Your task to perform on an android device: toggle airplane mode Image 0: 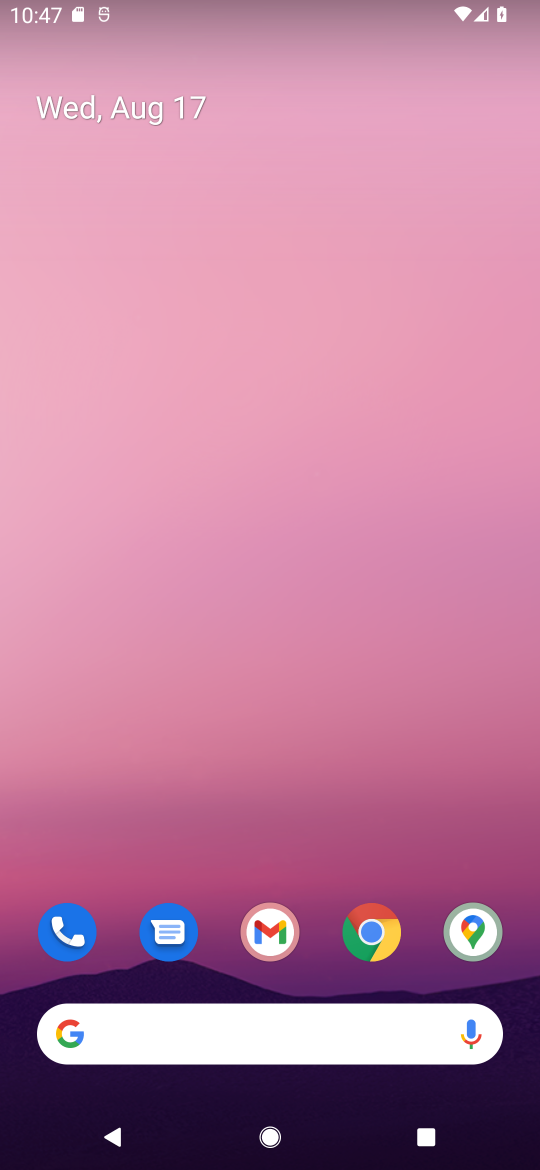
Step 0: drag from (325, 833) to (327, 14)
Your task to perform on an android device: toggle airplane mode Image 1: 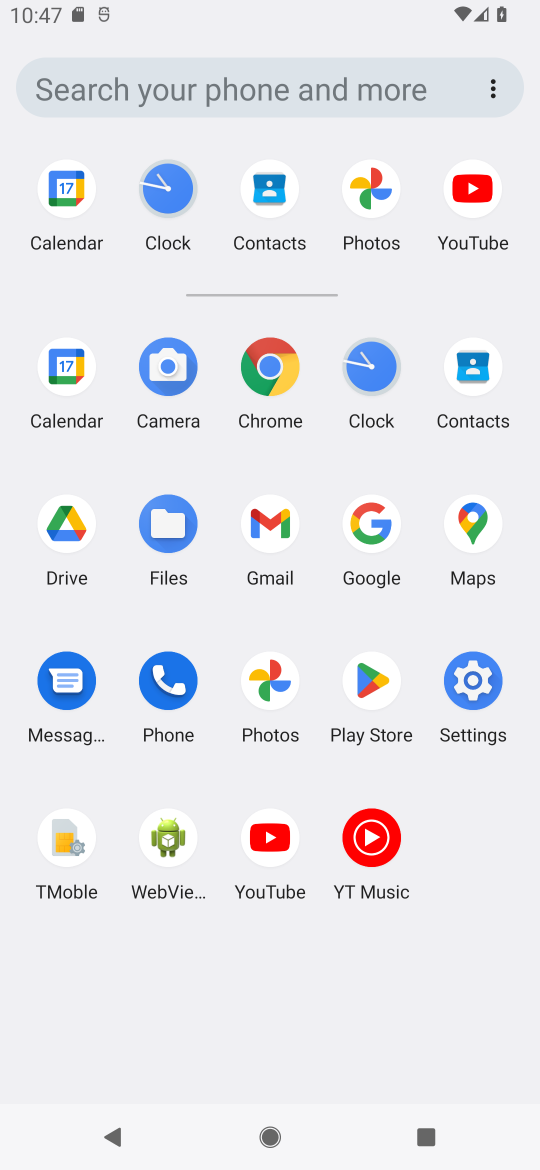
Step 1: click (481, 682)
Your task to perform on an android device: toggle airplane mode Image 2: 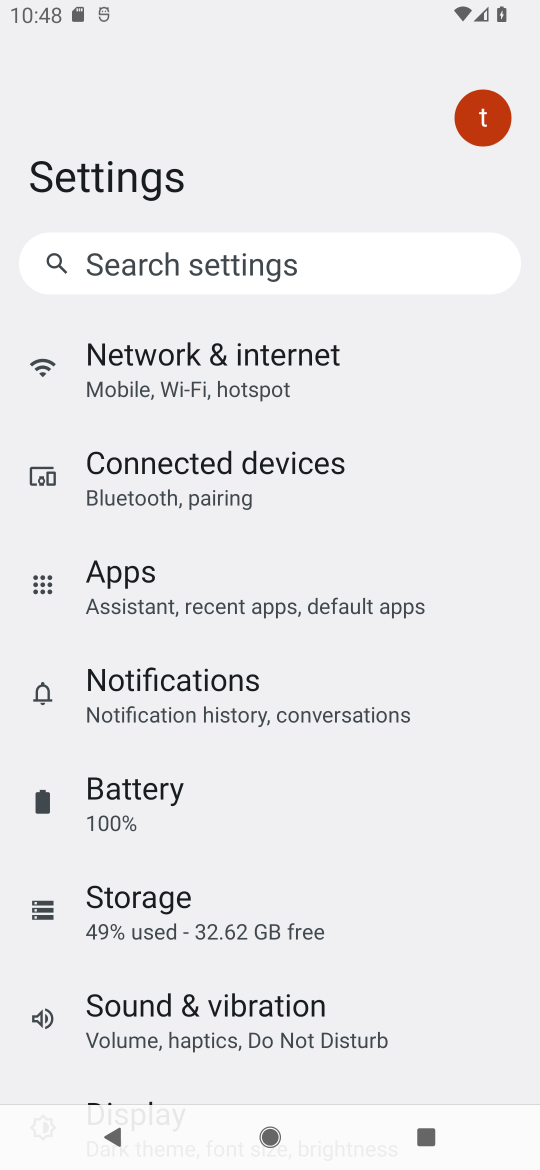
Step 2: drag from (137, 1000) to (137, 848)
Your task to perform on an android device: toggle airplane mode Image 3: 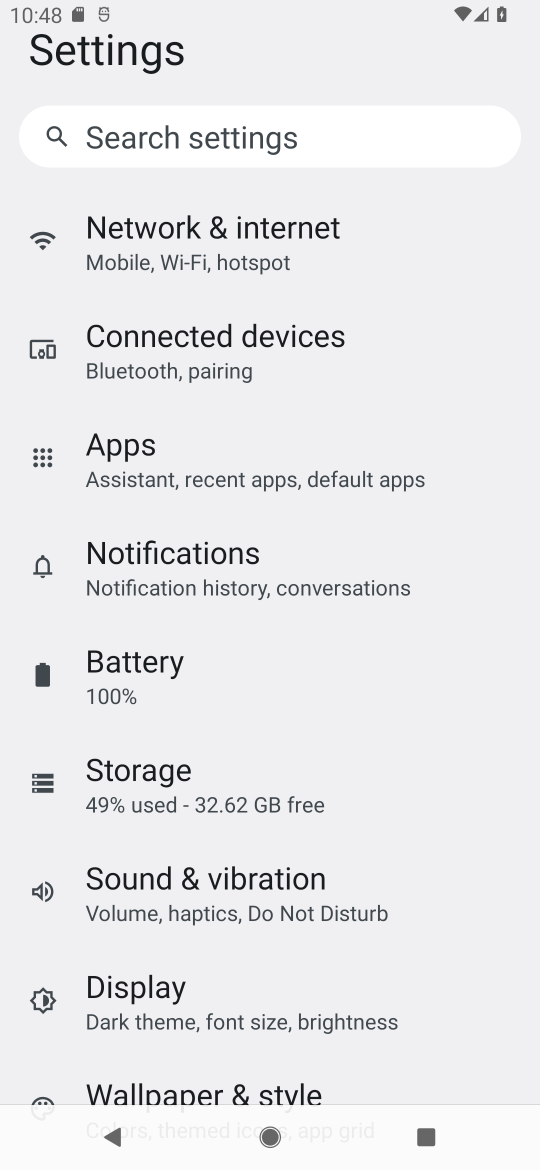
Step 3: click (168, 253)
Your task to perform on an android device: toggle airplane mode Image 4: 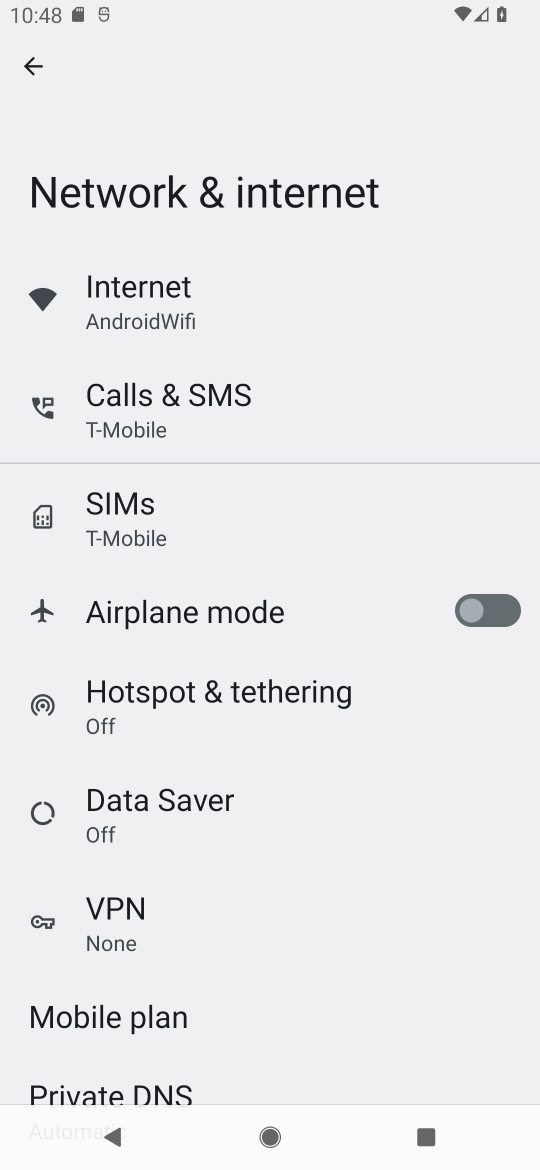
Step 4: click (496, 607)
Your task to perform on an android device: toggle airplane mode Image 5: 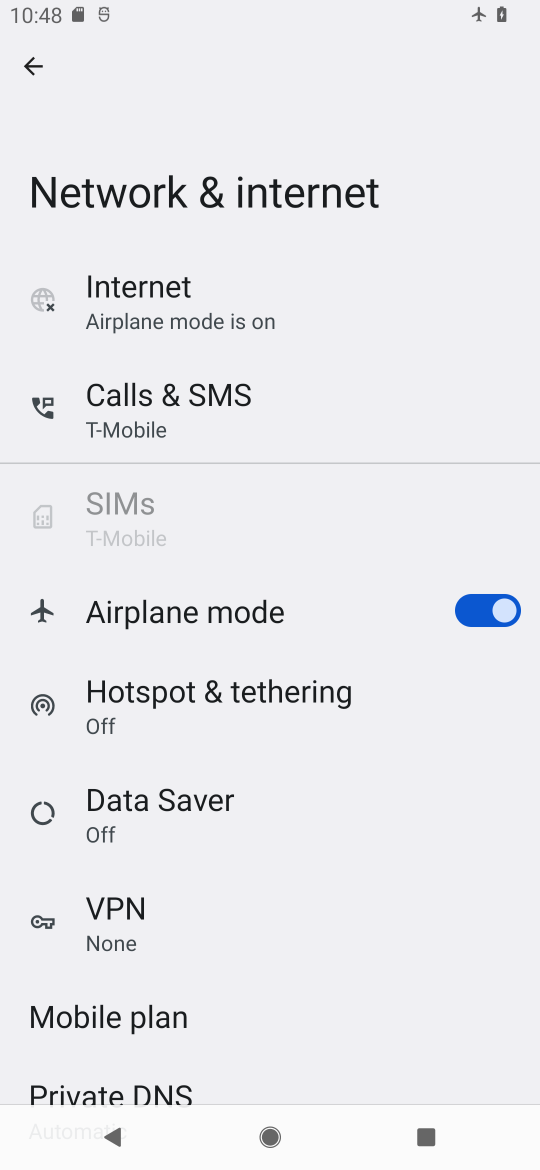
Step 5: task complete